Your task to perform on an android device: install app "LinkedIn" Image 0: 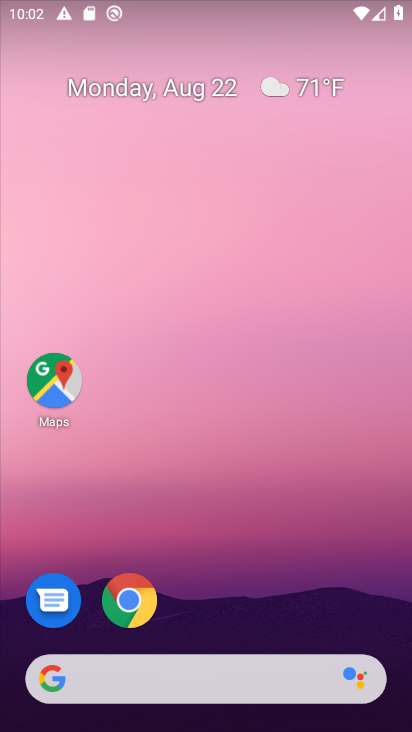
Step 0: drag from (217, 583) to (259, 83)
Your task to perform on an android device: install app "LinkedIn" Image 1: 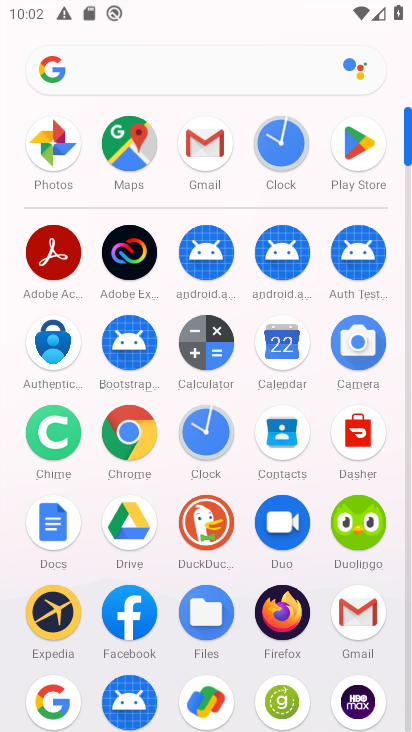
Step 1: click (344, 133)
Your task to perform on an android device: install app "LinkedIn" Image 2: 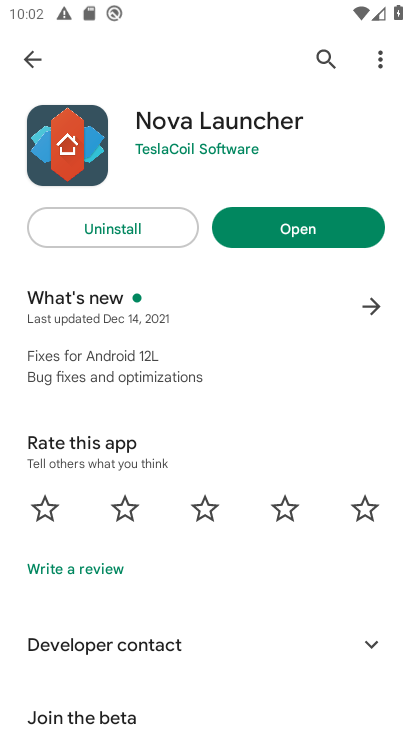
Step 2: click (323, 43)
Your task to perform on an android device: install app "LinkedIn" Image 3: 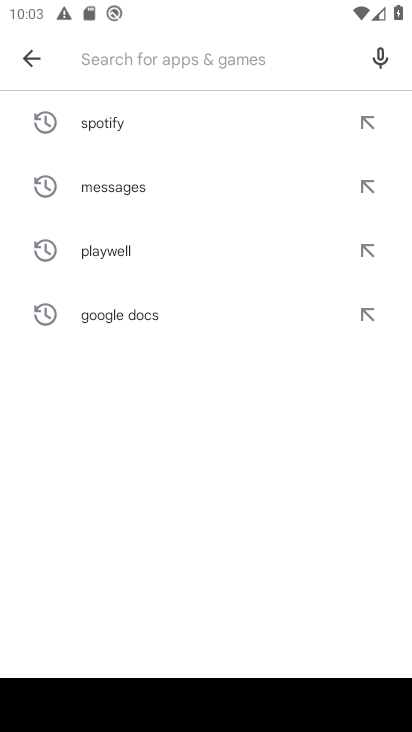
Step 3: type "LinkedIn"
Your task to perform on an android device: install app "LinkedIn" Image 4: 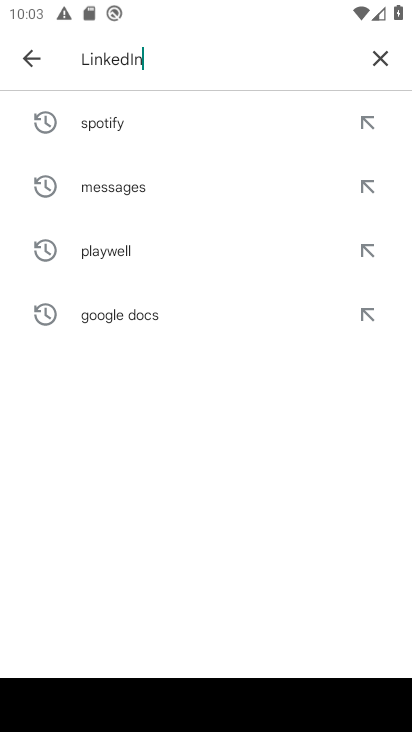
Step 4: type ""
Your task to perform on an android device: install app "LinkedIn" Image 5: 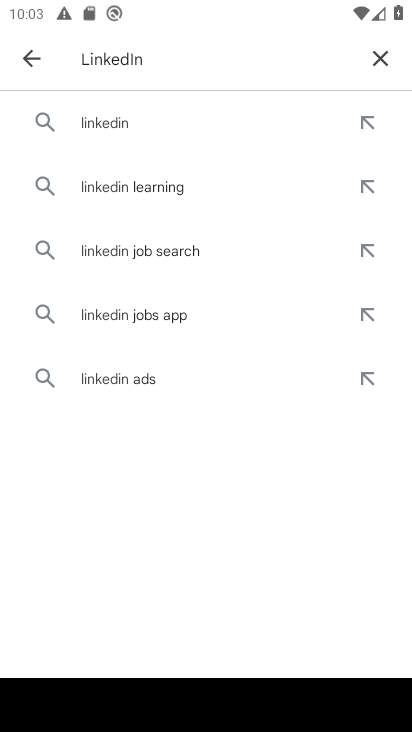
Step 5: click (100, 112)
Your task to perform on an android device: install app "LinkedIn" Image 6: 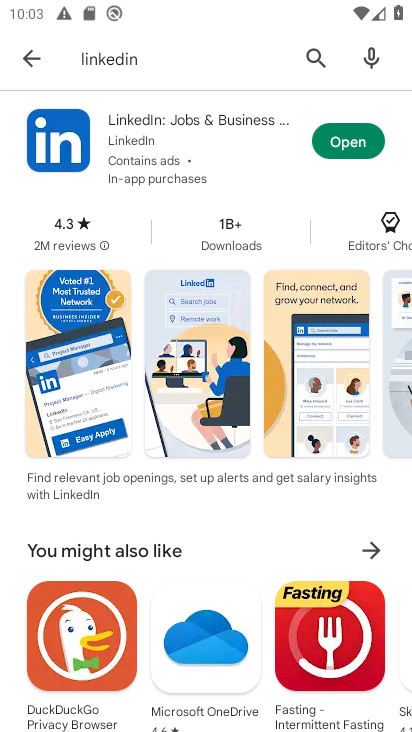
Step 6: task complete